Your task to perform on an android device: open chrome privacy settings Image 0: 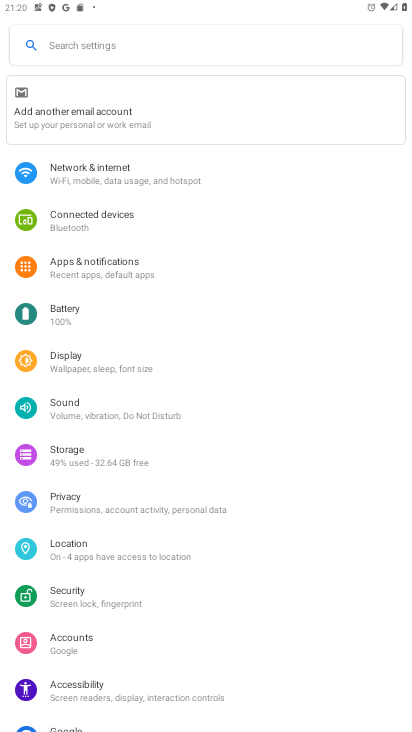
Step 0: press home button
Your task to perform on an android device: open chrome privacy settings Image 1: 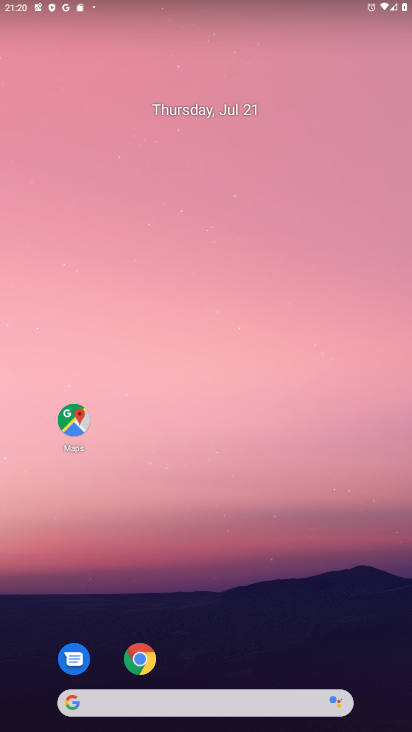
Step 1: click (404, 445)
Your task to perform on an android device: open chrome privacy settings Image 2: 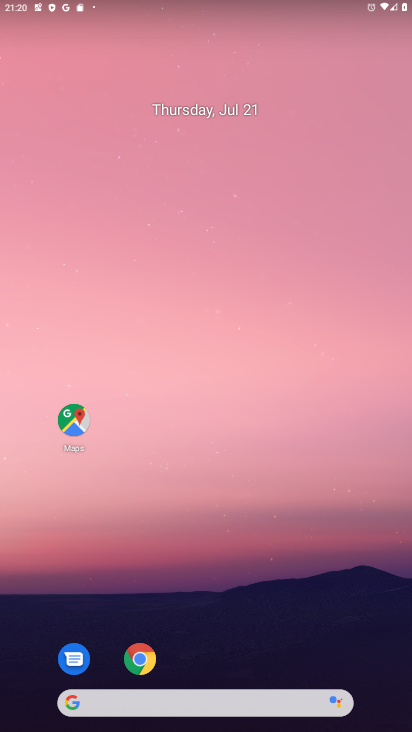
Step 2: click (140, 669)
Your task to perform on an android device: open chrome privacy settings Image 3: 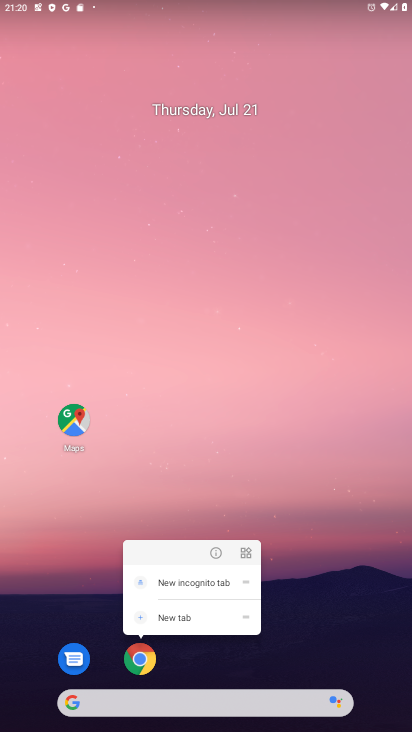
Step 3: click (136, 664)
Your task to perform on an android device: open chrome privacy settings Image 4: 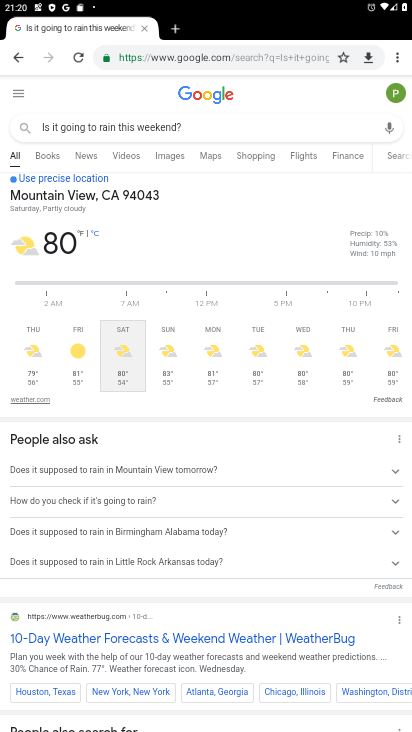
Step 4: drag from (396, 59) to (279, 358)
Your task to perform on an android device: open chrome privacy settings Image 5: 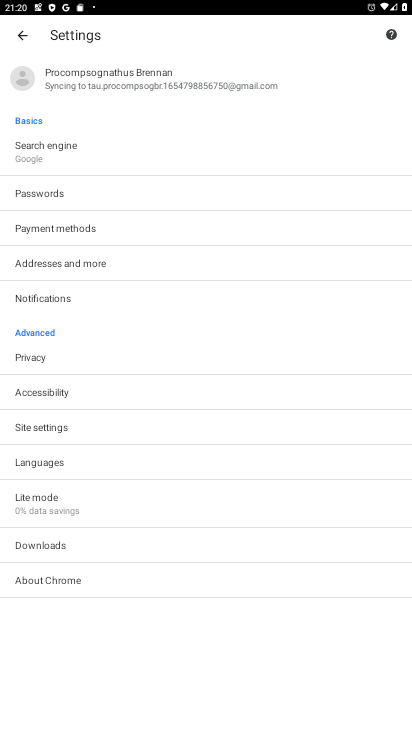
Step 5: click (25, 353)
Your task to perform on an android device: open chrome privacy settings Image 6: 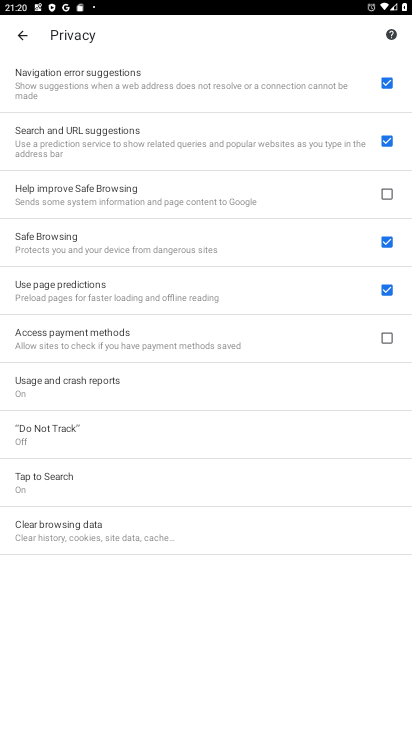
Step 6: task complete